Your task to perform on an android device: Open the phone app and click the voicemail tab. Image 0: 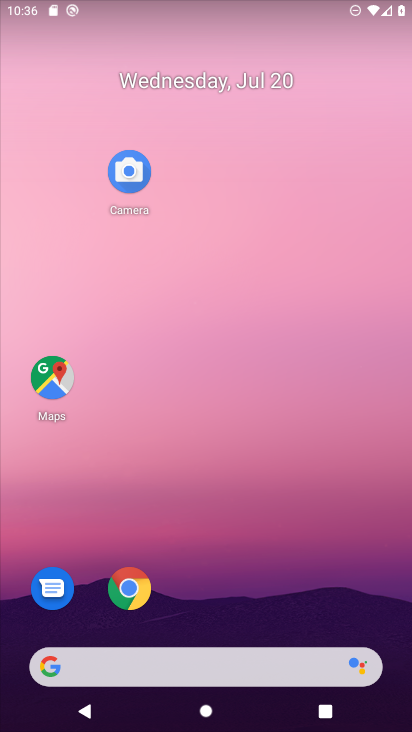
Step 0: press home button
Your task to perform on an android device: Open the phone app and click the voicemail tab. Image 1: 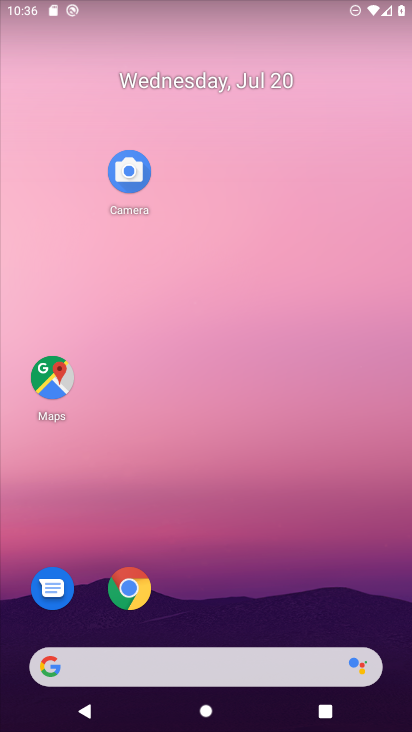
Step 1: drag from (296, 602) to (333, 105)
Your task to perform on an android device: Open the phone app and click the voicemail tab. Image 2: 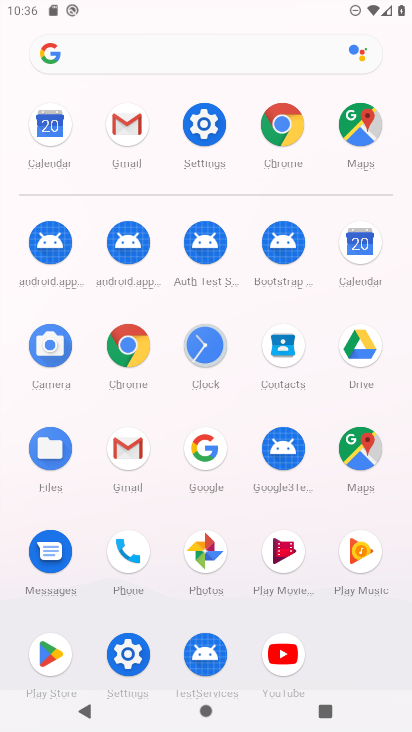
Step 2: click (130, 548)
Your task to perform on an android device: Open the phone app and click the voicemail tab. Image 3: 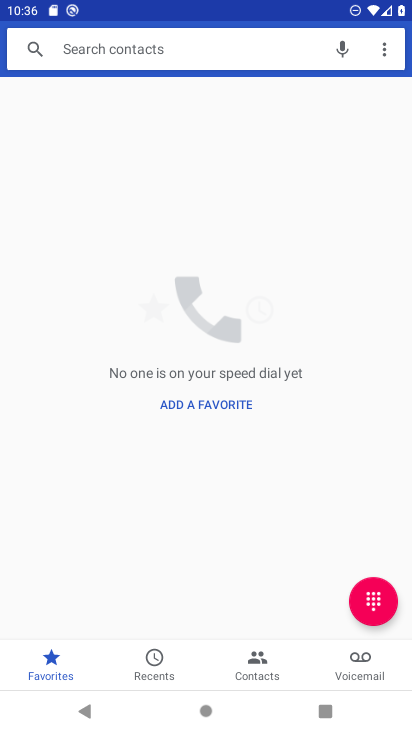
Step 3: click (358, 668)
Your task to perform on an android device: Open the phone app and click the voicemail tab. Image 4: 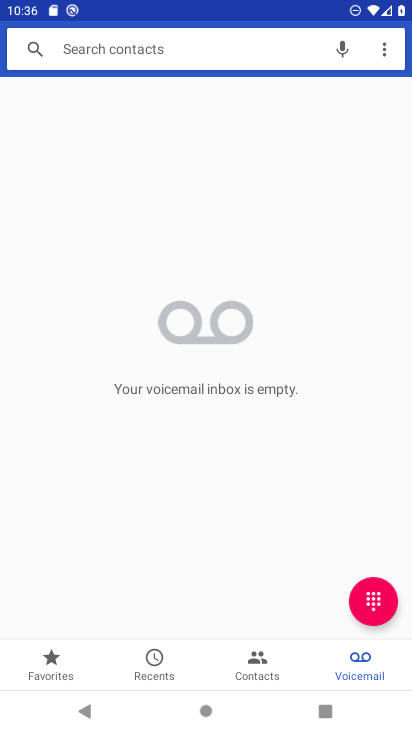
Step 4: task complete